Your task to perform on an android device: turn on improve location accuracy Image 0: 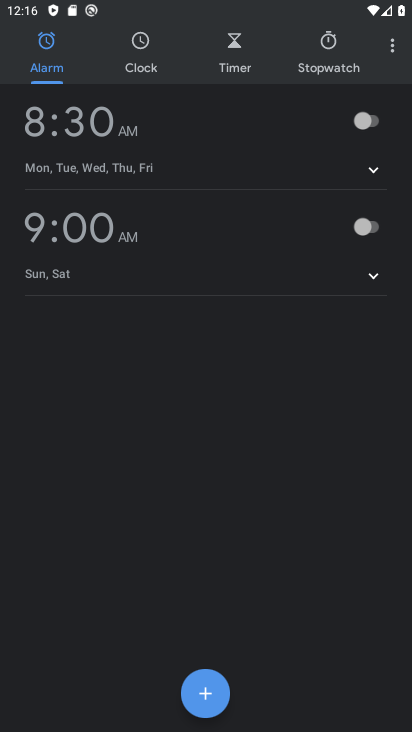
Step 0: press home button
Your task to perform on an android device: turn on improve location accuracy Image 1: 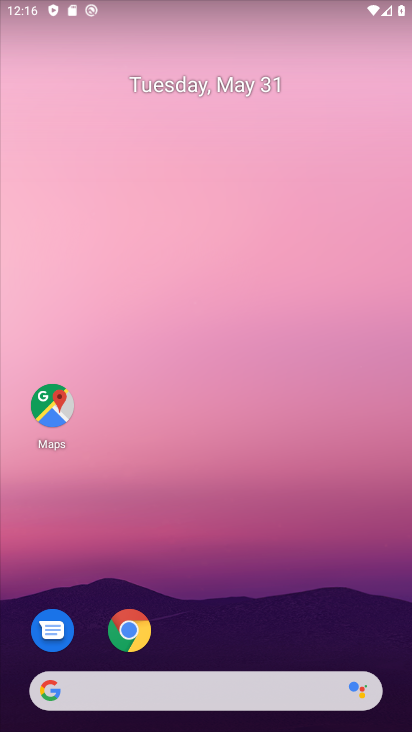
Step 1: drag from (194, 636) to (214, 245)
Your task to perform on an android device: turn on improve location accuracy Image 2: 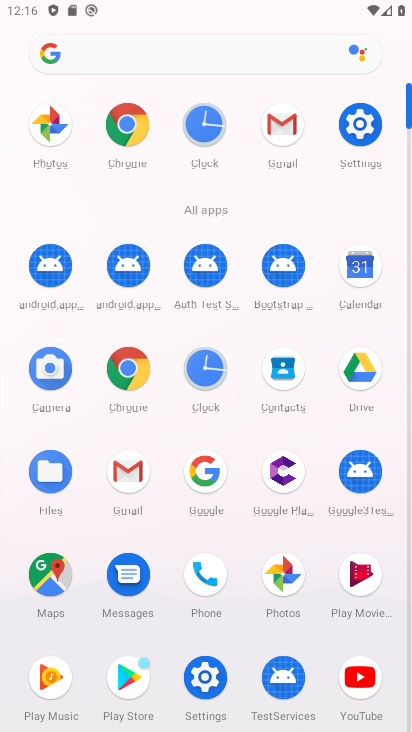
Step 2: click (355, 125)
Your task to perform on an android device: turn on improve location accuracy Image 3: 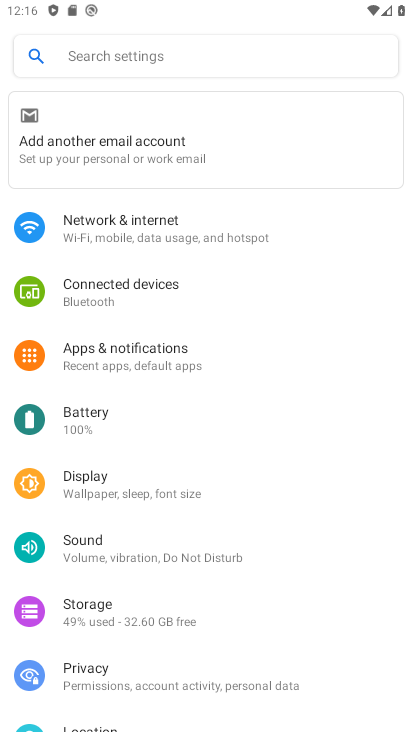
Step 3: drag from (144, 610) to (217, 318)
Your task to perform on an android device: turn on improve location accuracy Image 4: 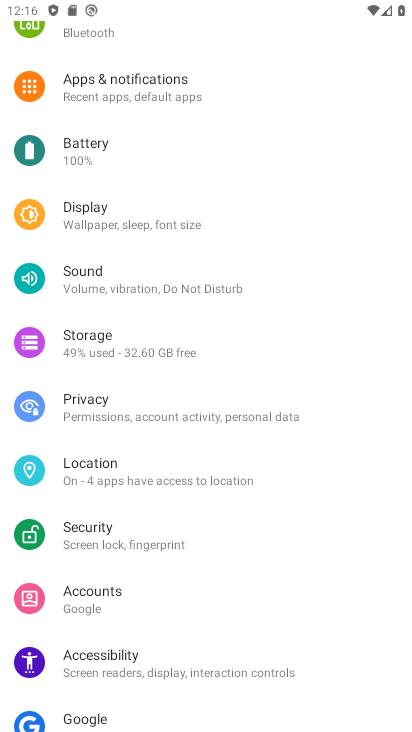
Step 4: click (108, 473)
Your task to perform on an android device: turn on improve location accuracy Image 5: 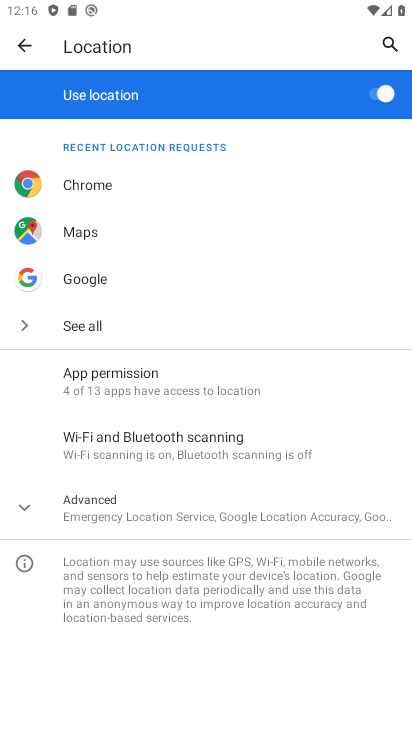
Step 5: click (15, 513)
Your task to perform on an android device: turn on improve location accuracy Image 6: 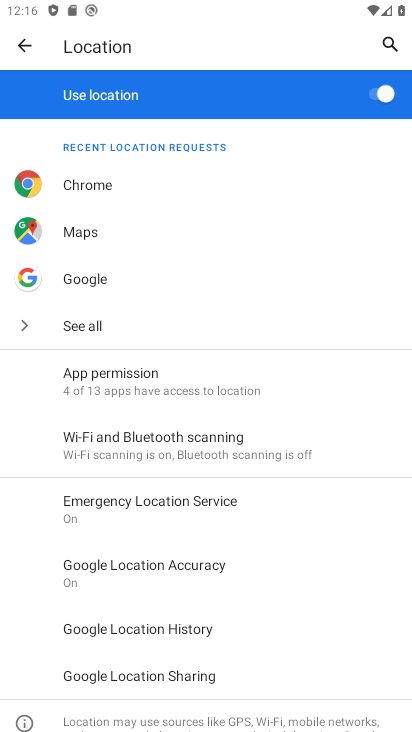
Step 6: click (157, 569)
Your task to perform on an android device: turn on improve location accuracy Image 7: 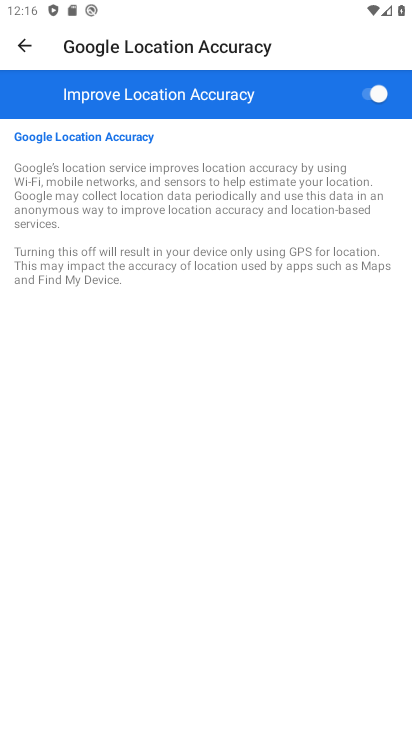
Step 7: task complete